Your task to perform on an android device: Open the phone app and click the voicemail tab. Image 0: 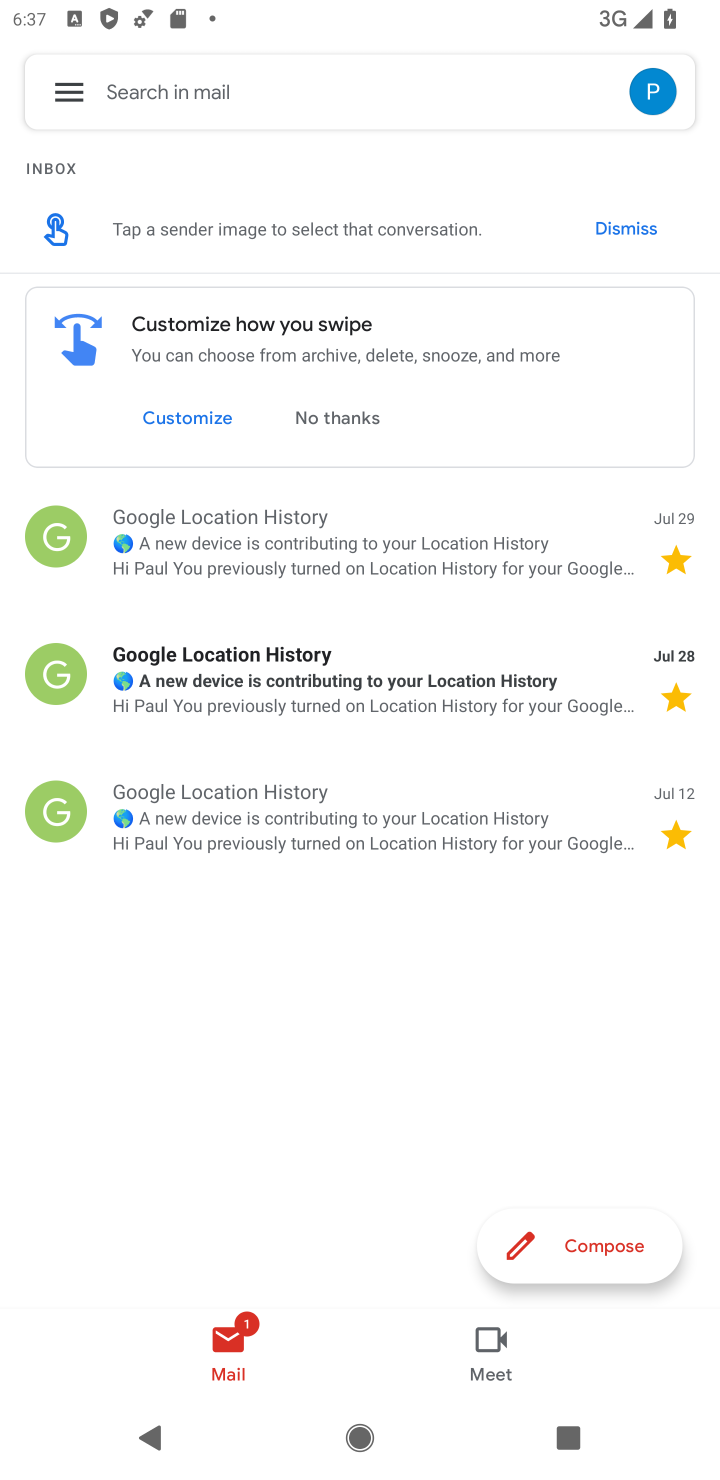
Step 0: press home button
Your task to perform on an android device: Open the phone app and click the voicemail tab. Image 1: 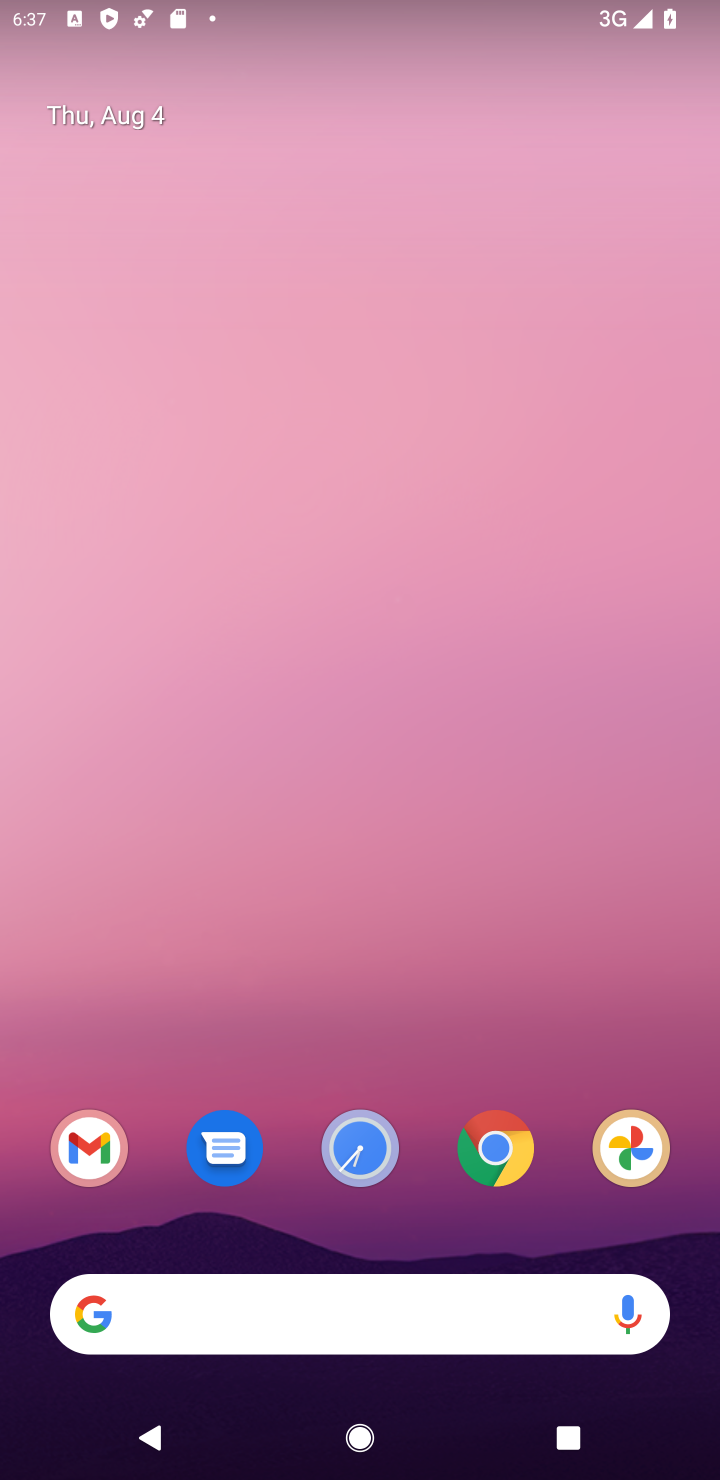
Step 1: drag from (559, 1237) to (513, 18)
Your task to perform on an android device: Open the phone app and click the voicemail tab. Image 2: 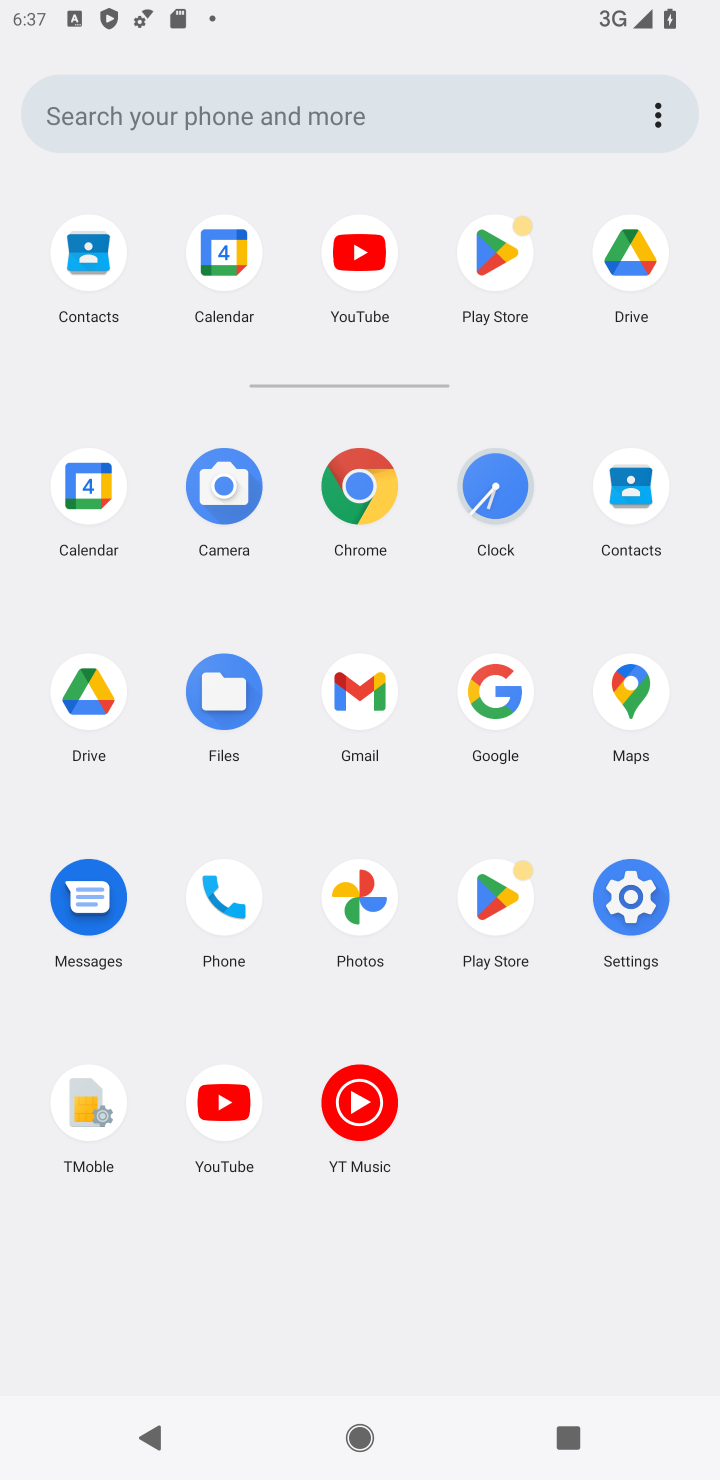
Step 2: click (215, 900)
Your task to perform on an android device: Open the phone app and click the voicemail tab. Image 3: 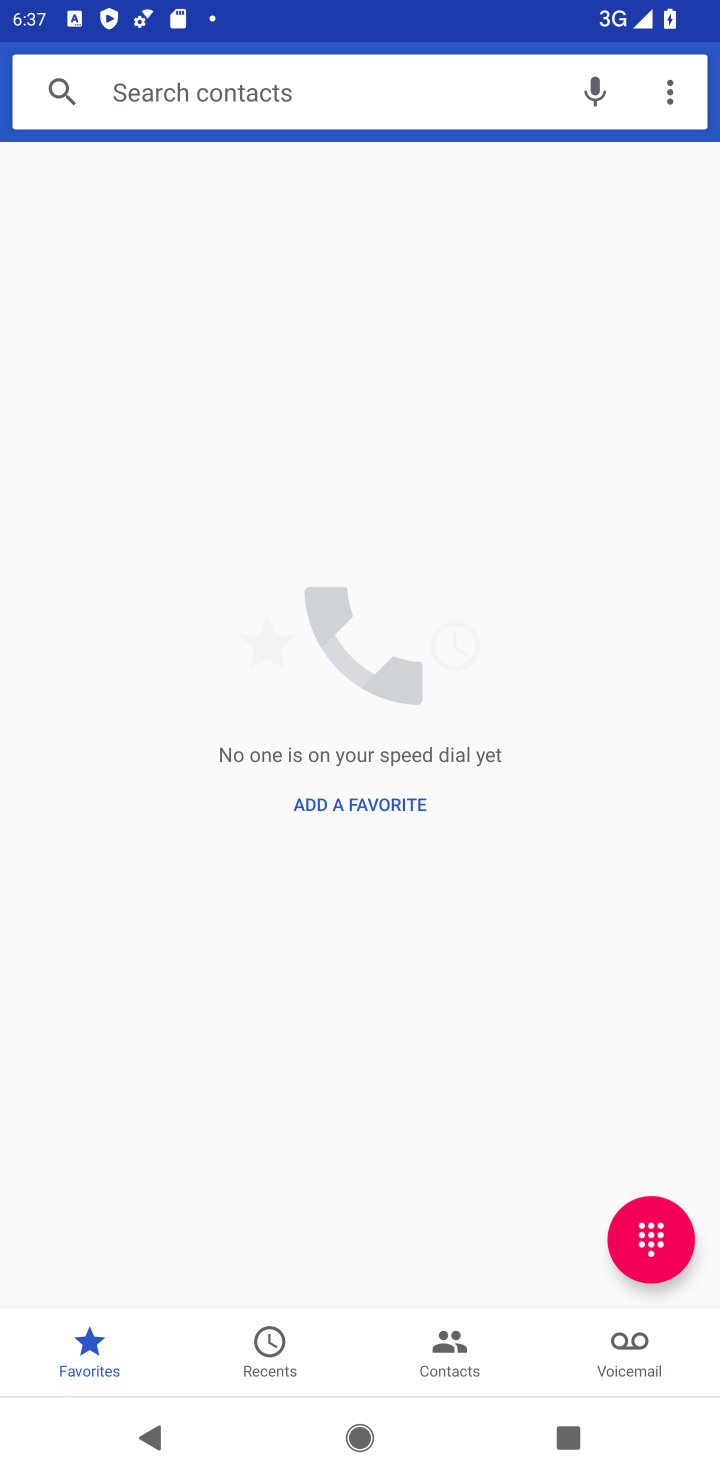
Step 3: click (608, 1350)
Your task to perform on an android device: Open the phone app and click the voicemail tab. Image 4: 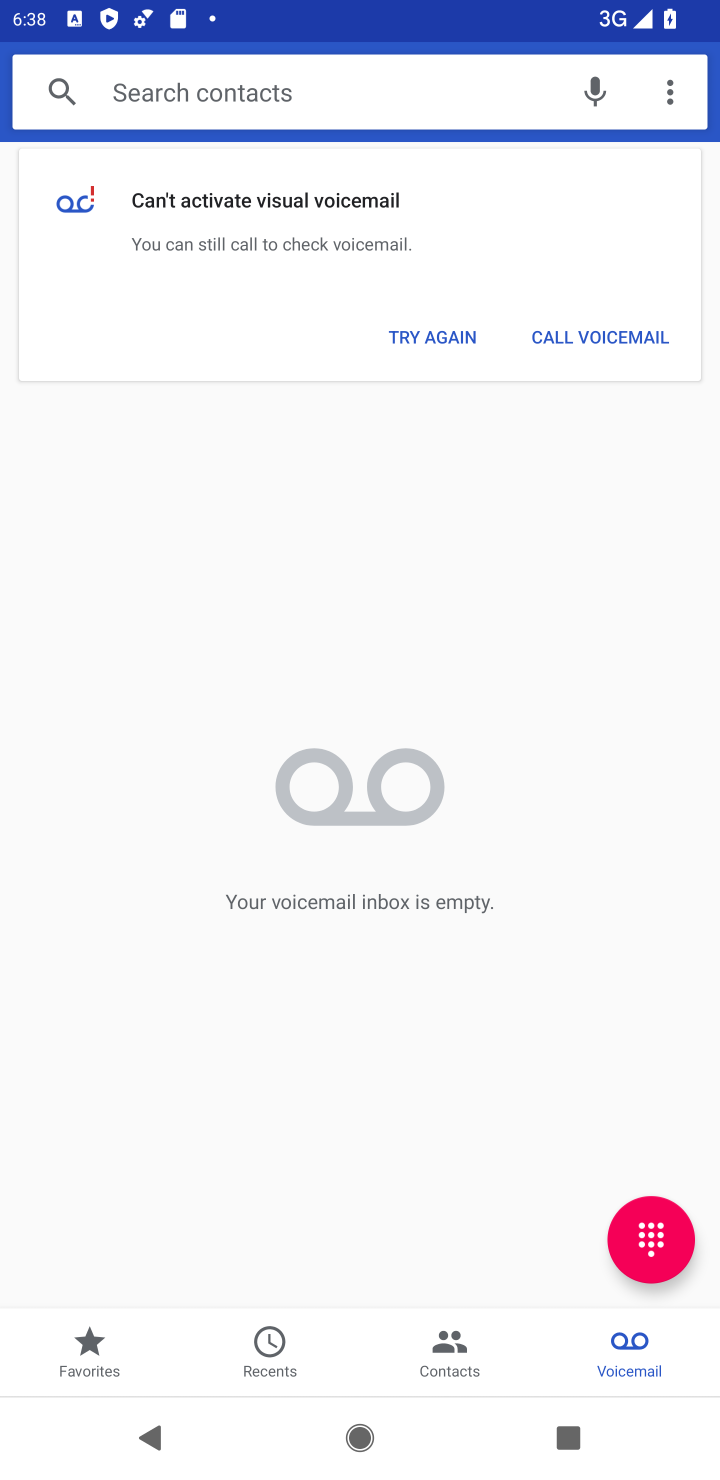
Step 4: task complete